Your task to perform on an android device: open a bookmark in the chrome app Image 0: 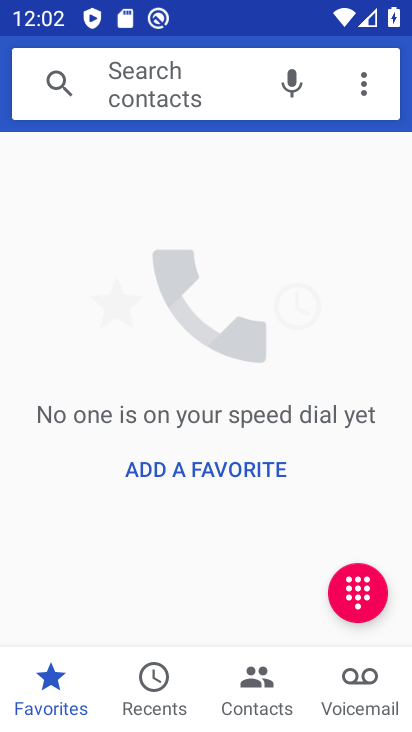
Step 0: click (229, 603)
Your task to perform on an android device: open a bookmark in the chrome app Image 1: 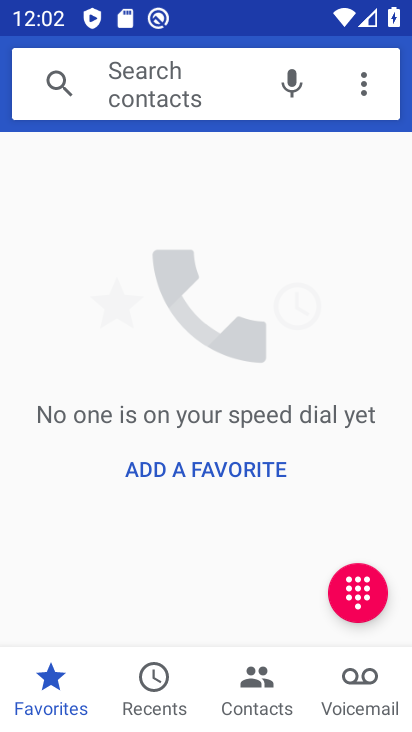
Step 1: press home button
Your task to perform on an android device: open a bookmark in the chrome app Image 2: 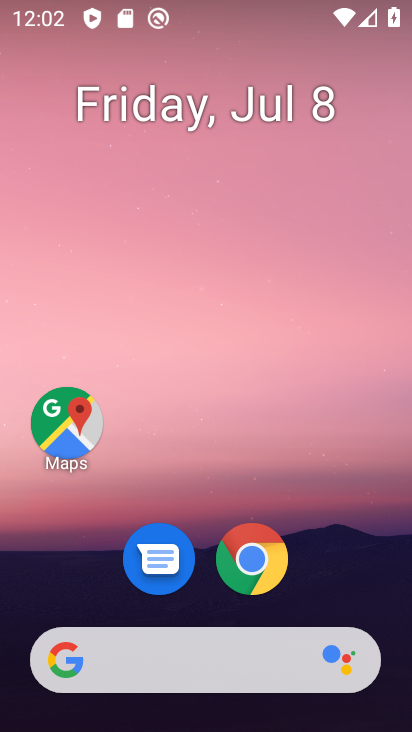
Step 2: drag from (199, 598) to (178, 4)
Your task to perform on an android device: open a bookmark in the chrome app Image 3: 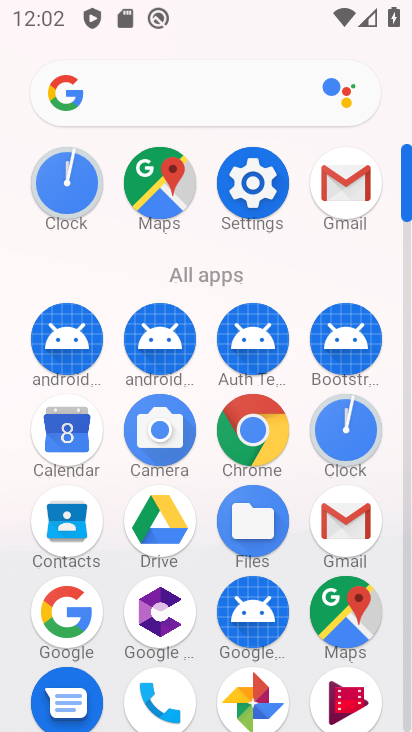
Step 3: click (260, 453)
Your task to perform on an android device: open a bookmark in the chrome app Image 4: 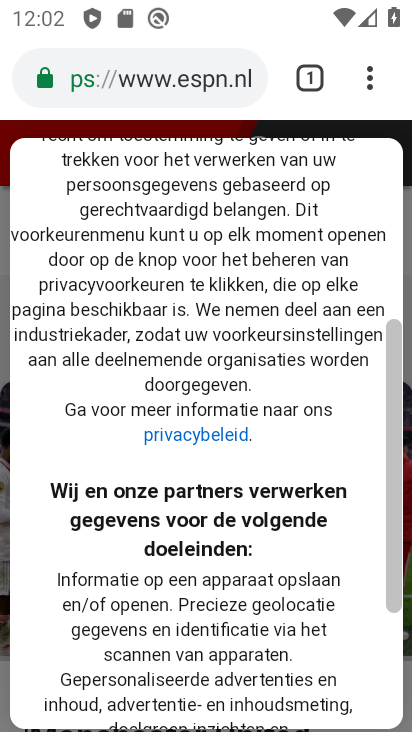
Step 4: click (369, 81)
Your task to perform on an android device: open a bookmark in the chrome app Image 5: 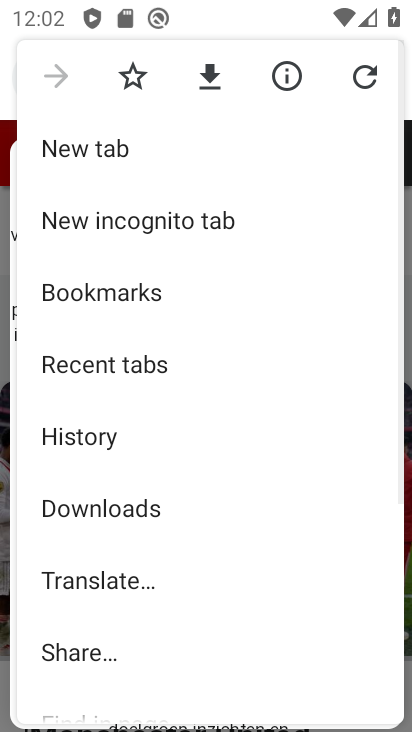
Step 5: click (124, 308)
Your task to perform on an android device: open a bookmark in the chrome app Image 6: 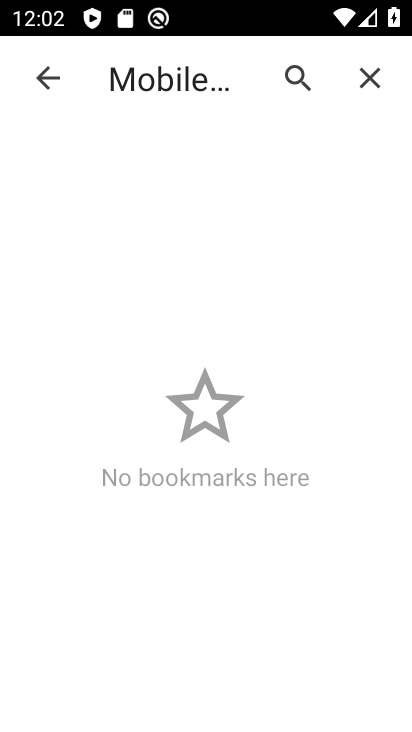
Step 6: task complete